Your task to perform on an android device: delete the emails in spam in the gmail app Image 0: 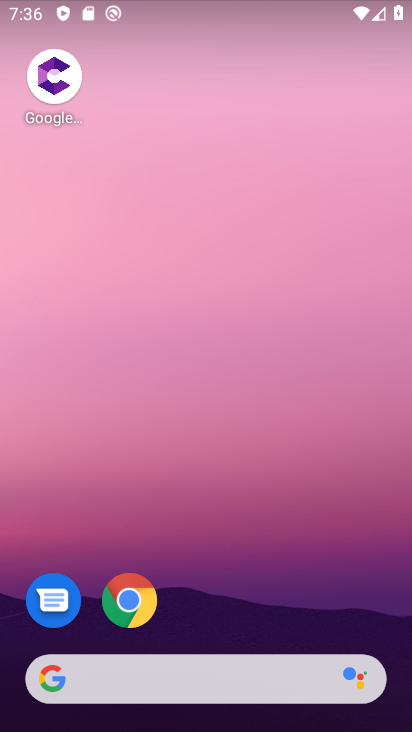
Step 0: drag from (279, 632) to (238, 7)
Your task to perform on an android device: delete the emails in spam in the gmail app Image 1: 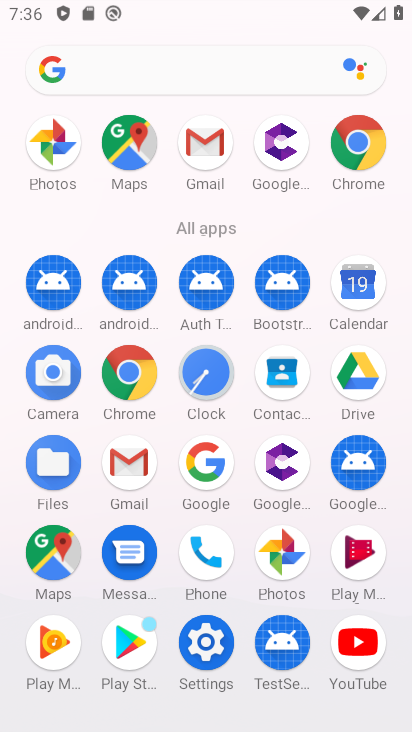
Step 1: click (198, 137)
Your task to perform on an android device: delete the emails in spam in the gmail app Image 2: 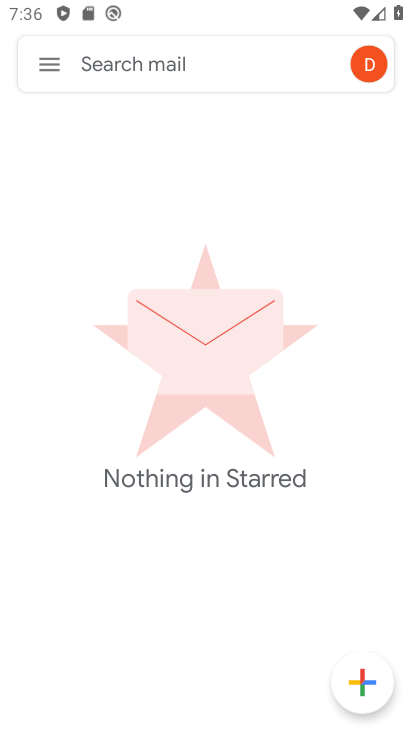
Step 2: click (50, 66)
Your task to perform on an android device: delete the emails in spam in the gmail app Image 3: 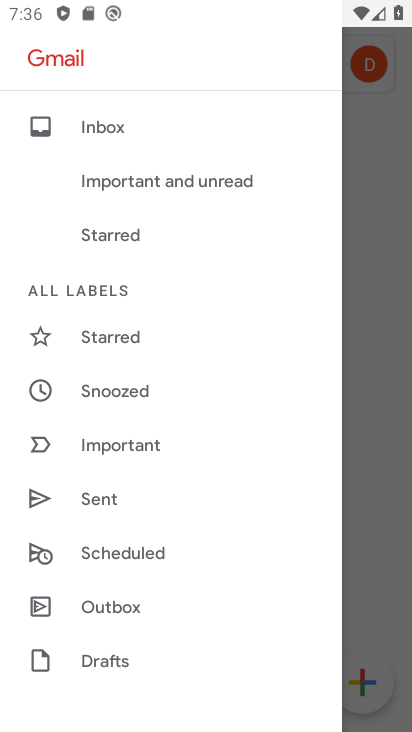
Step 3: drag from (187, 629) to (164, 221)
Your task to perform on an android device: delete the emails in spam in the gmail app Image 4: 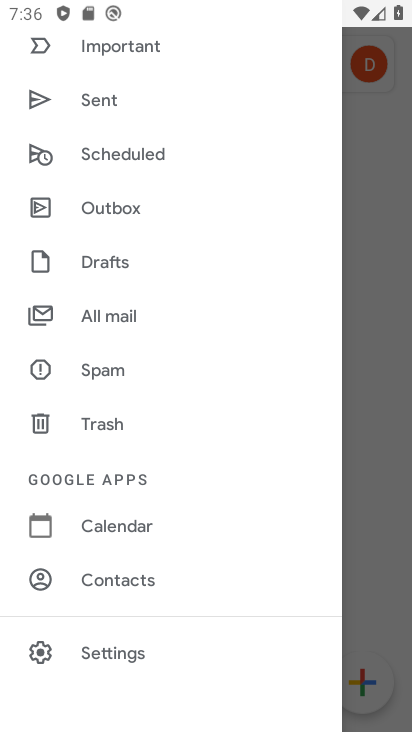
Step 4: click (95, 376)
Your task to perform on an android device: delete the emails in spam in the gmail app Image 5: 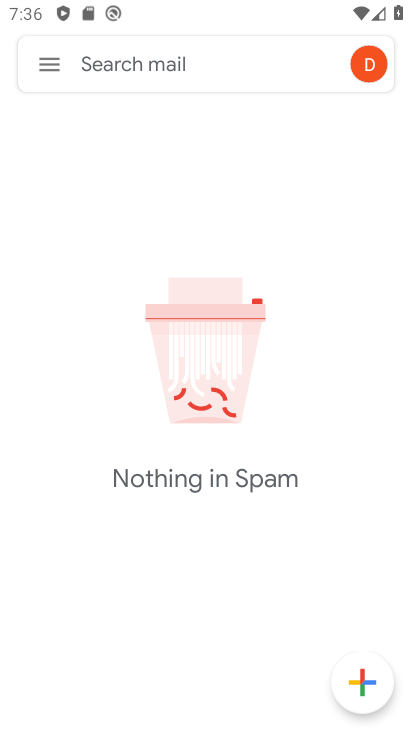
Step 5: task complete